Your task to perform on an android device: Open accessibility settings Image 0: 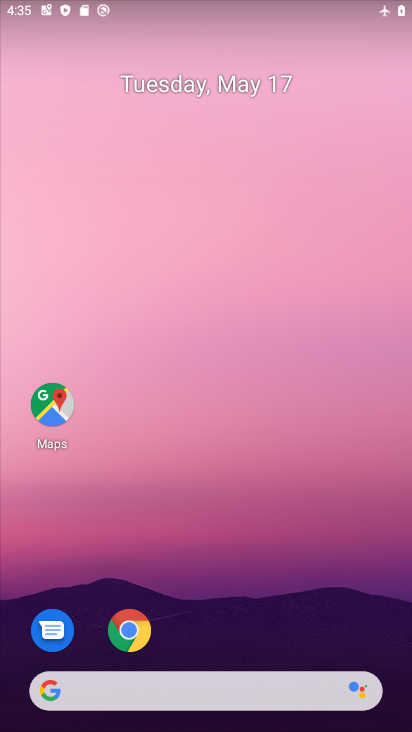
Step 0: drag from (278, 725) to (280, 155)
Your task to perform on an android device: Open accessibility settings Image 1: 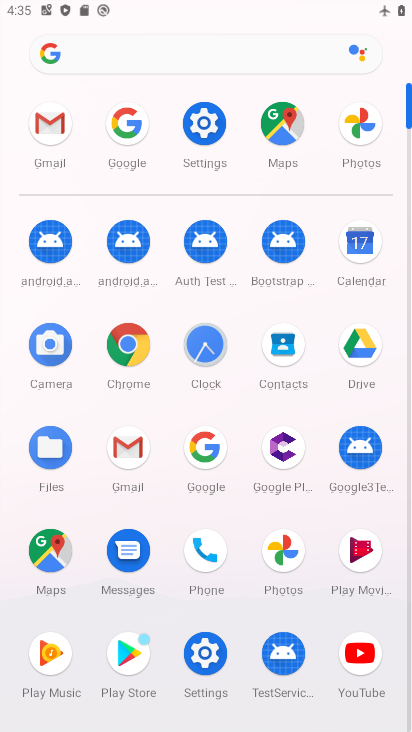
Step 1: click (211, 119)
Your task to perform on an android device: Open accessibility settings Image 2: 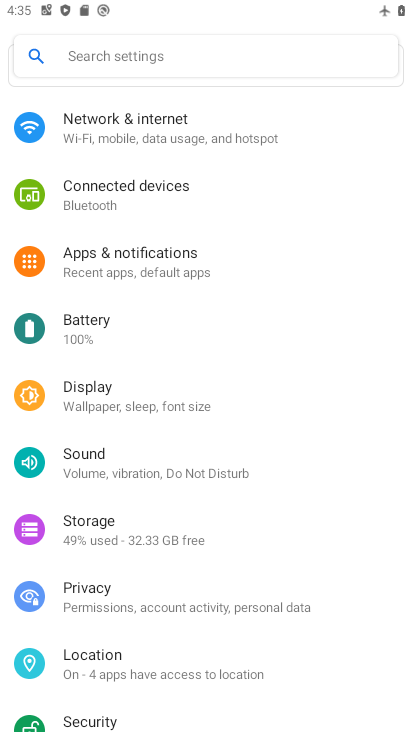
Step 2: drag from (110, 688) to (145, 201)
Your task to perform on an android device: Open accessibility settings Image 3: 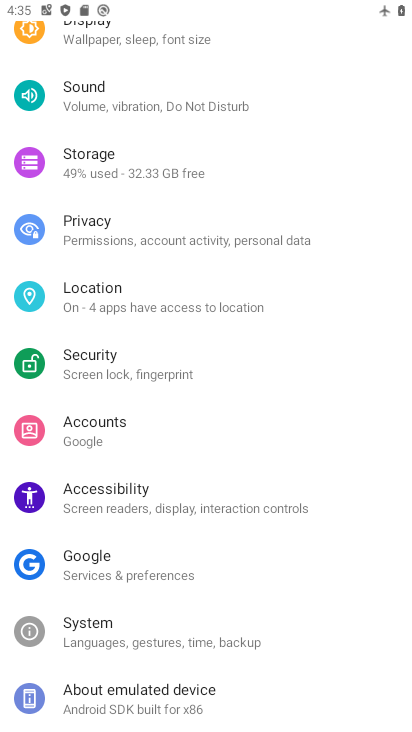
Step 3: click (126, 494)
Your task to perform on an android device: Open accessibility settings Image 4: 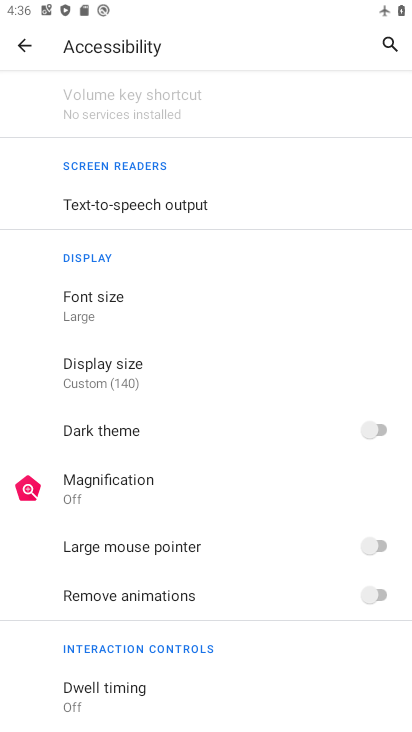
Step 4: task complete